Your task to perform on an android device: change text size in settings app Image 0: 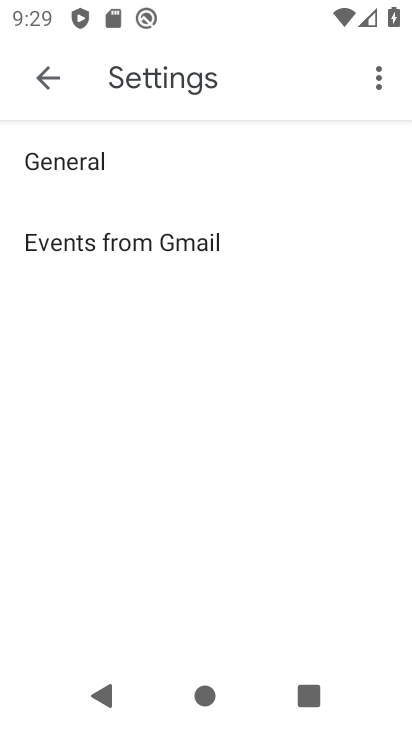
Step 0: press home button
Your task to perform on an android device: change text size in settings app Image 1: 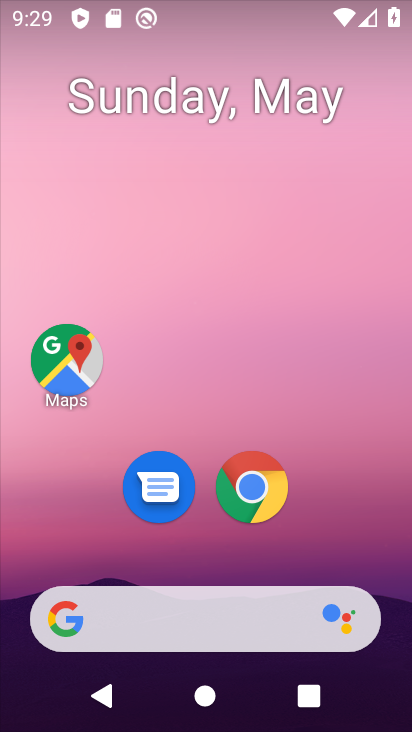
Step 1: drag from (294, 545) to (331, 67)
Your task to perform on an android device: change text size in settings app Image 2: 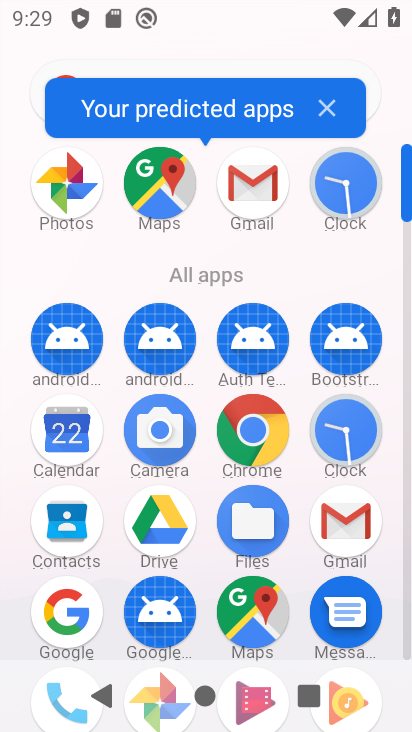
Step 2: drag from (197, 484) to (230, 102)
Your task to perform on an android device: change text size in settings app Image 3: 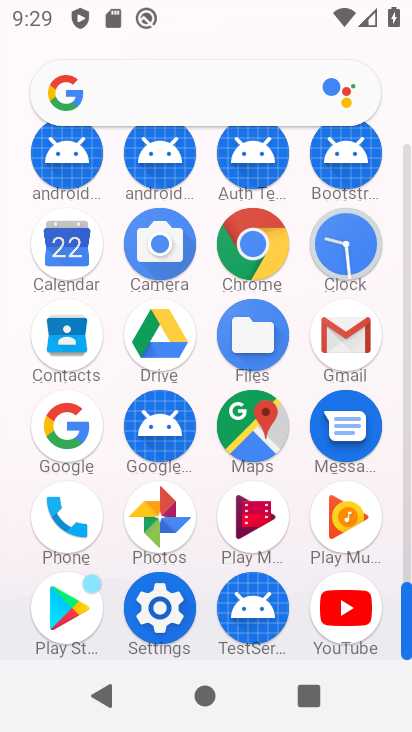
Step 3: click (162, 621)
Your task to perform on an android device: change text size in settings app Image 4: 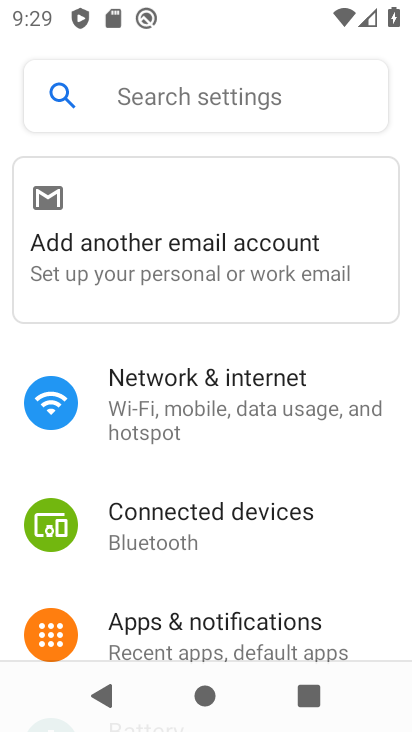
Step 4: drag from (294, 575) to (245, 268)
Your task to perform on an android device: change text size in settings app Image 5: 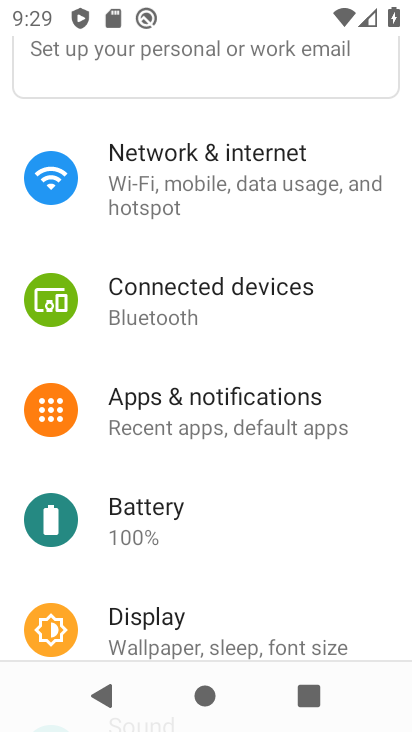
Step 5: click (175, 620)
Your task to perform on an android device: change text size in settings app Image 6: 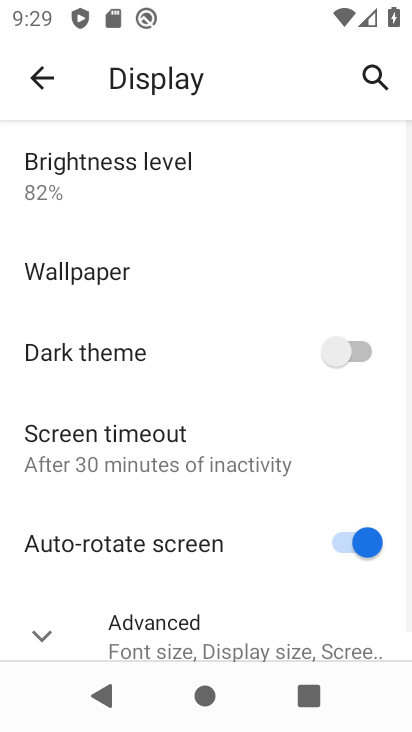
Step 6: drag from (227, 598) to (192, 194)
Your task to perform on an android device: change text size in settings app Image 7: 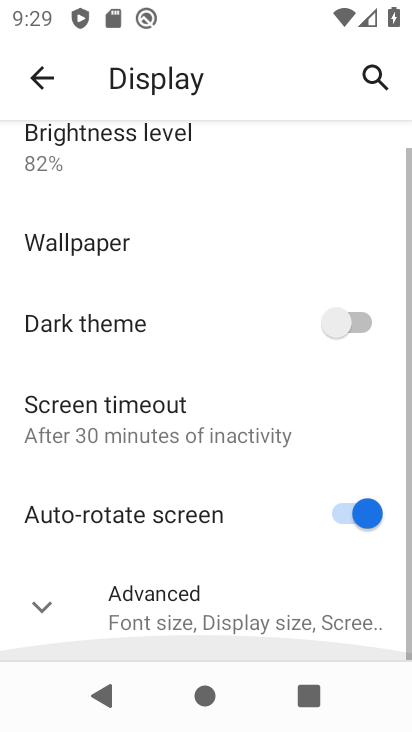
Step 7: click (136, 612)
Your task to perform on an android device: change text size in settings app Image 8: 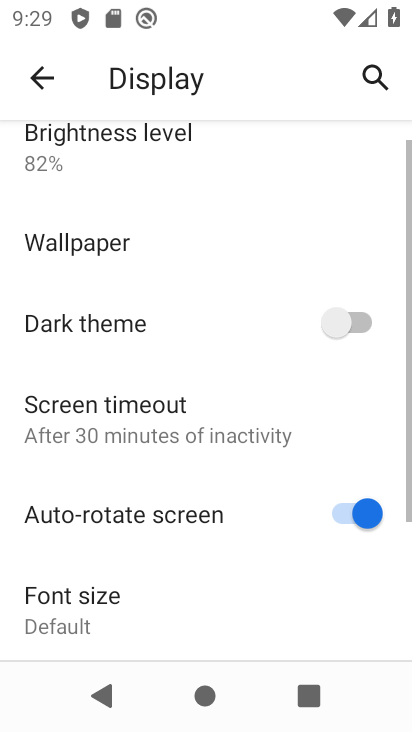
Step 8: click (62, 613)
Your task to perform on an android device: change text size in settings app Image 9: 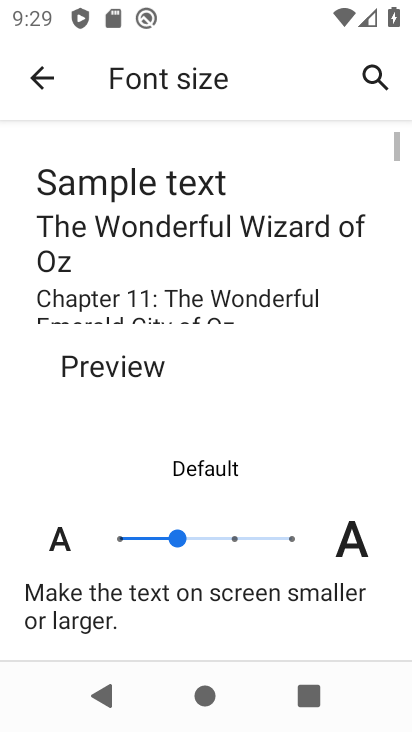
Step 9: click (174, 542)
Your task to perform on an android device: change text size in settings app Image 10: 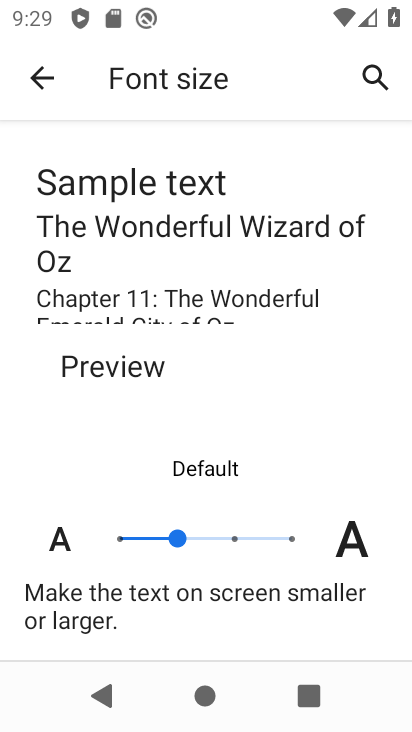
Step 10: task complete